Your task to perform on an android device: Go to wifi settings Image 0: 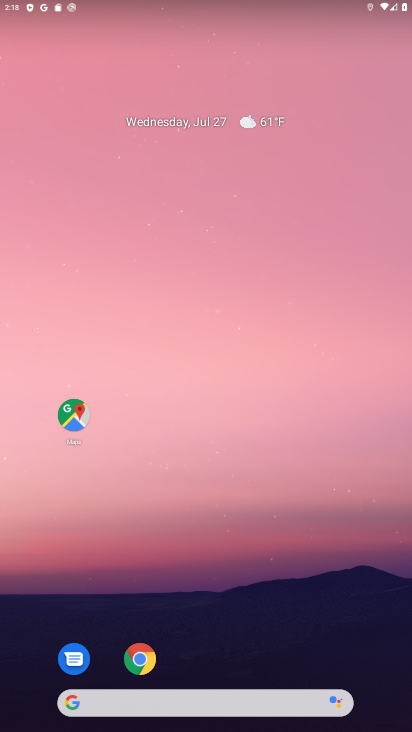
Step 0: drag from (210, 268) to (210, 215)
Your task to perform on an android device: Go to wifi settings Image 1: 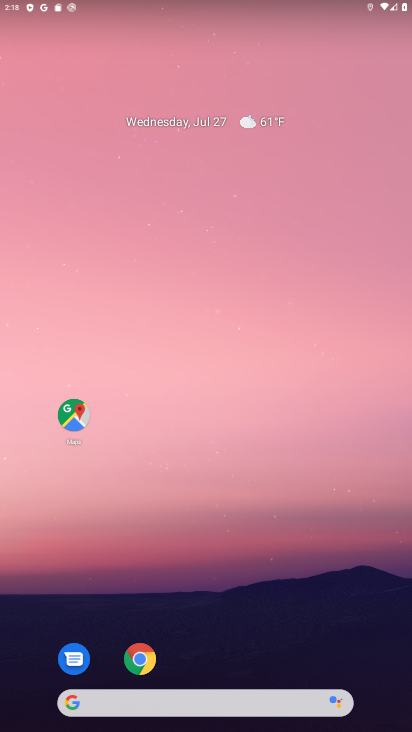
Step 1: drag from (231, 525) to (198, 303)
Your task to perform on an android device: Go to wifi settings Image 2: 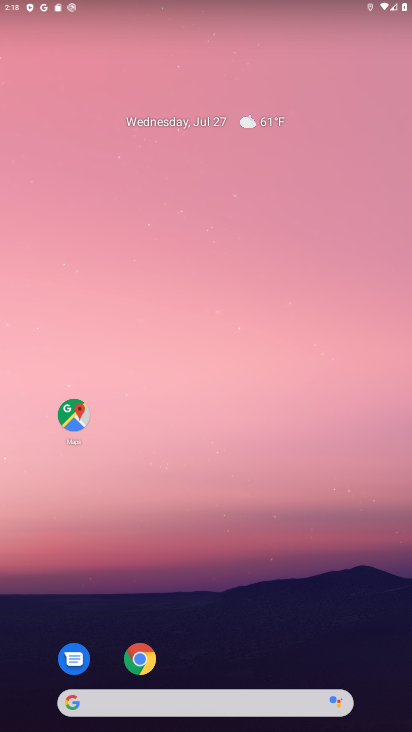
Step 2: drag from (176, 691) to (172, 249)
Your task to perform on an android device: Go to wifi settings Image 3: 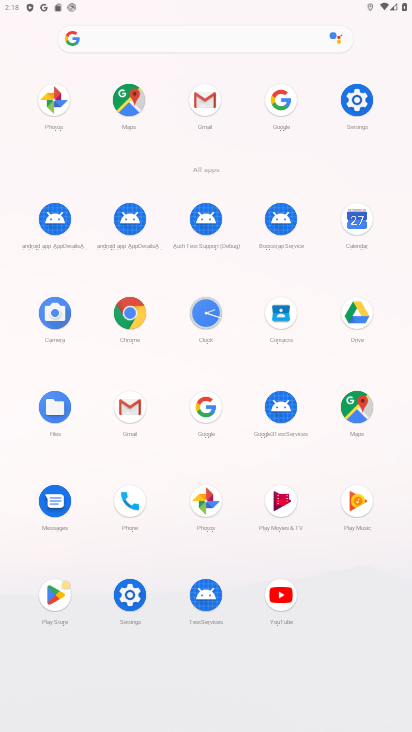
Step 3: click (353, 100)
Your task to perform on an android device: Go to wifi settings Image 4: 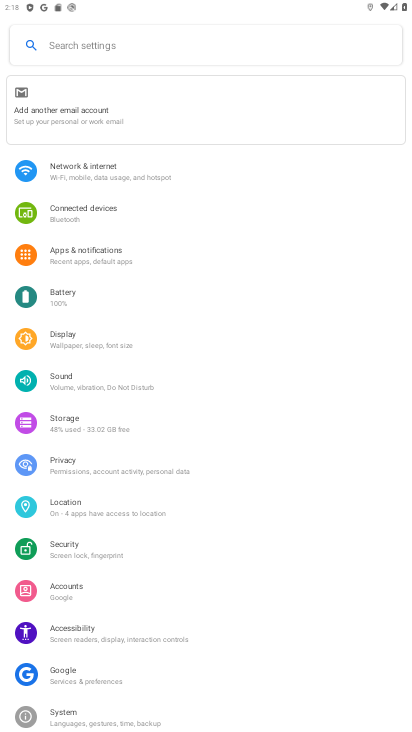
Step 4: click (116, 171)
Your task to perform on an android device: Go to wifi settings Image 5: 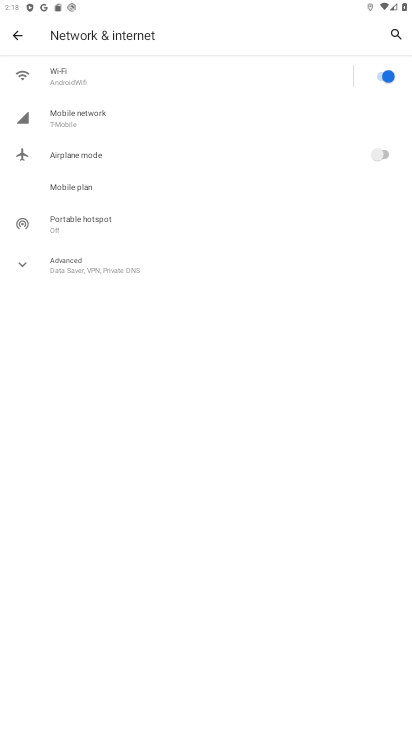
Step 5: click (60, 75)
Your task to perform on an android device: Go to wifi settings Image 6: 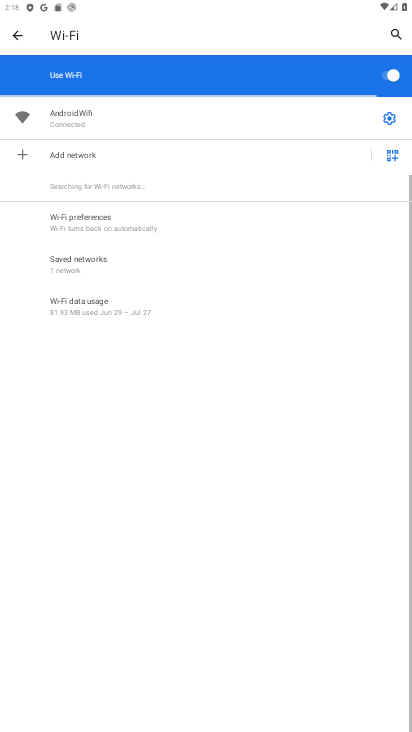
Step 6: click (392, 114)
Your task to perform on an android device: Go to wifi settings Image 7: 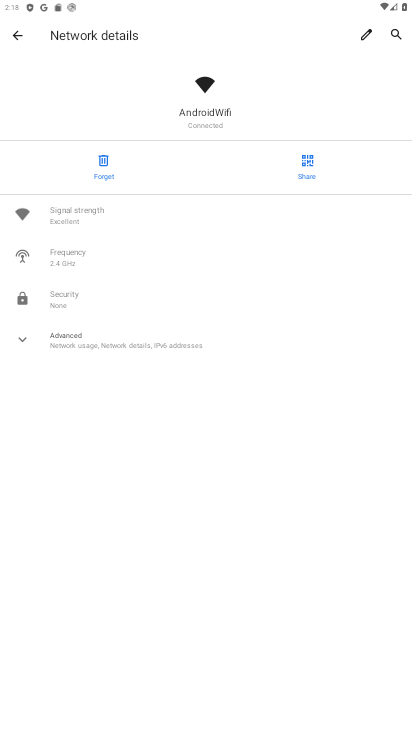
Step 7: click (81, 340)
Your task to perform on an android device: Go to wifi settings Image 8: 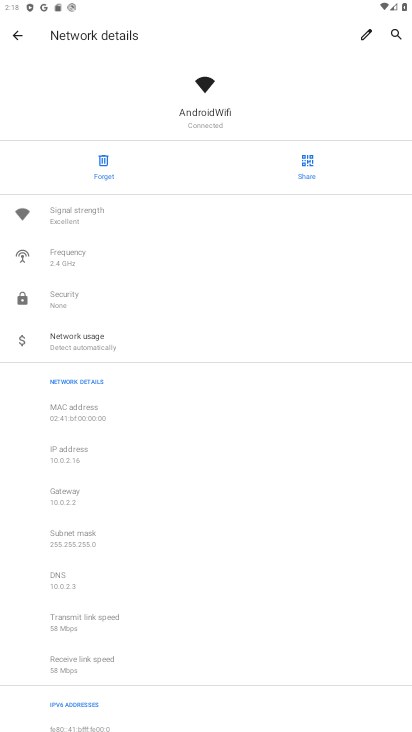
Step 8: task complete